Your task to perform on an android device: Search for vegetarian restaurants on Maps Image 0: 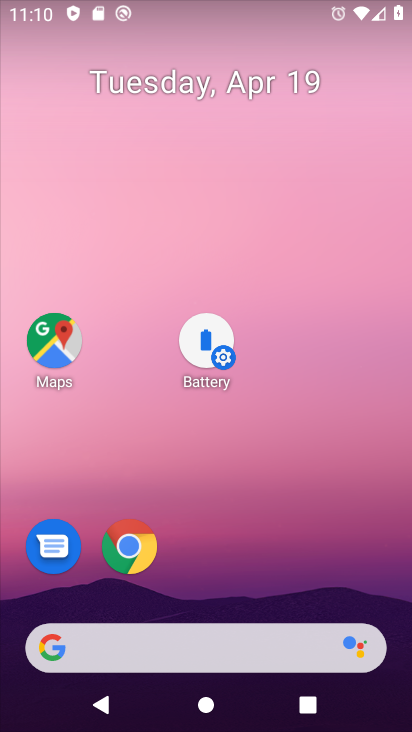
Step 0: click (51, 335)
Your task to perform on an android device: Search for vegetarian restaurants on Maps Image 1: 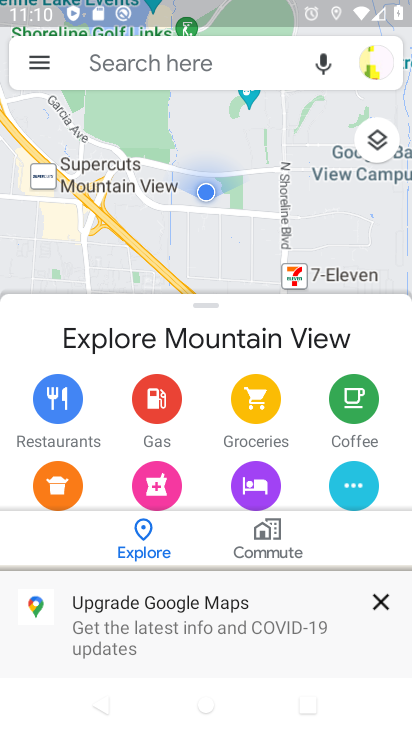
Step 1: click (146, 59)
Your task to perform on an android device: Search for vegetarian restaurants on Maps Image 2: 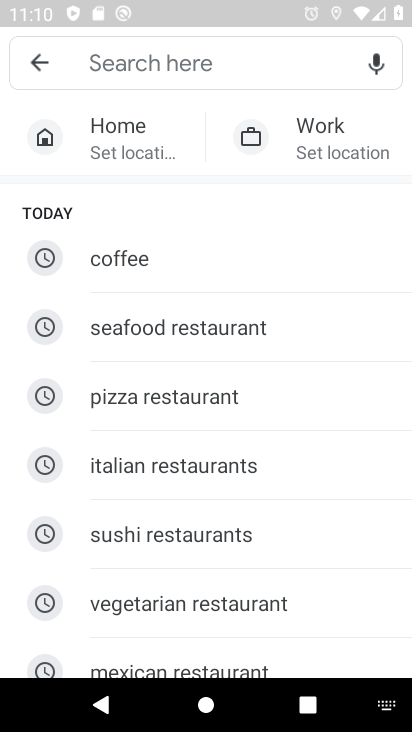
Step 2: click (238, 591)
Your task to perform on an android device: Search for vegetarian restaurants on Maps Image 3: 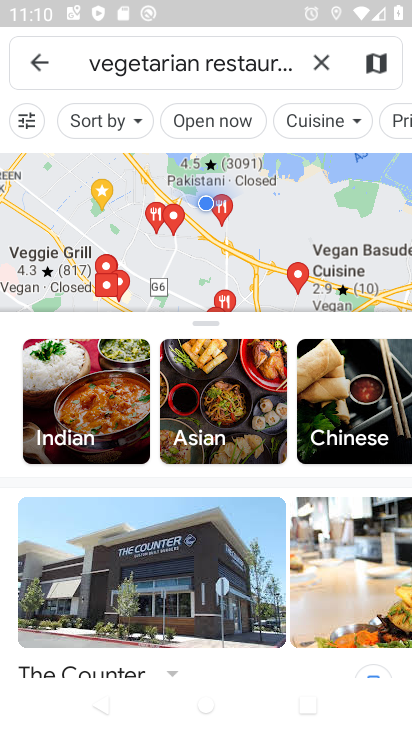
Step 3: task complete